Your task to perform on an android device: turn off priority inbox in the gmail app Image 0: 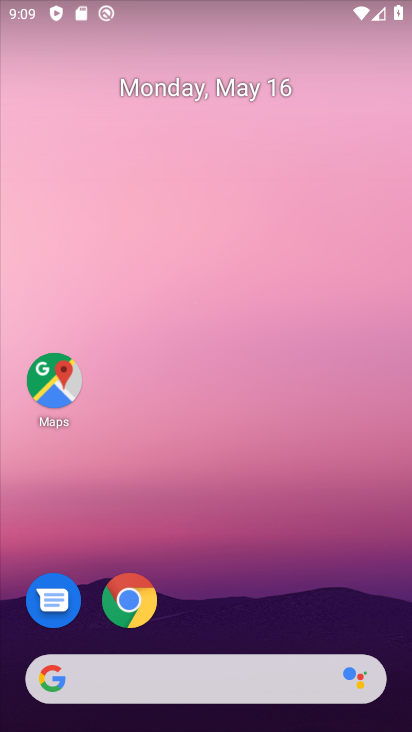
Step 0: drag from (193, 644) to (235, 199)
Your task to perform on an android device: turn off priority inbox in the gmail app Image 1: 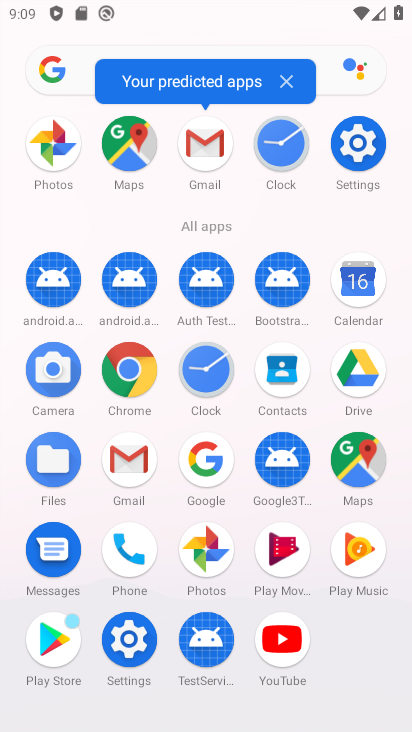
Step 1: click (134, 469)
Your task to perform on an android device: turn off priority inbox in the gmail app Image 2: 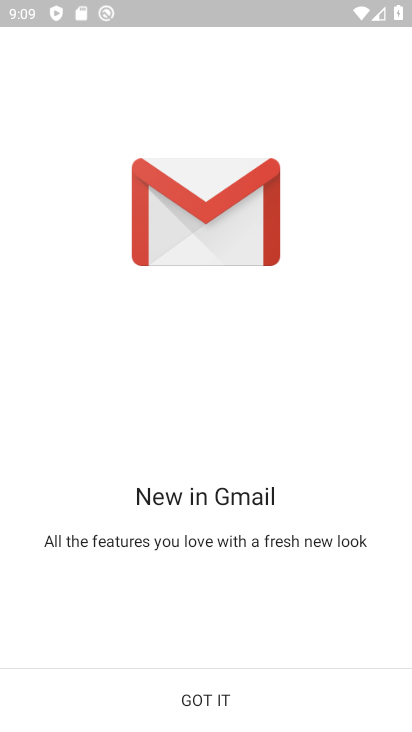
Step 2: click (209, 695)
Your task to perform on an android device: turn off priority inbox in the gmail app Image 3: 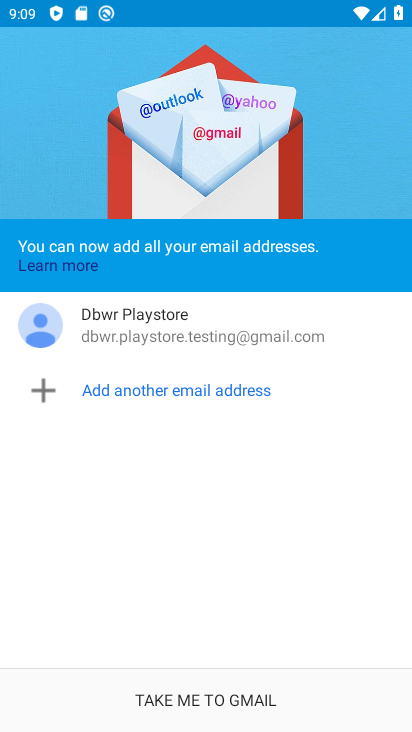
Step 3: click (209, 694)
Your task to perform on an android device: turn off priority inbox in the gmail app Image 4: 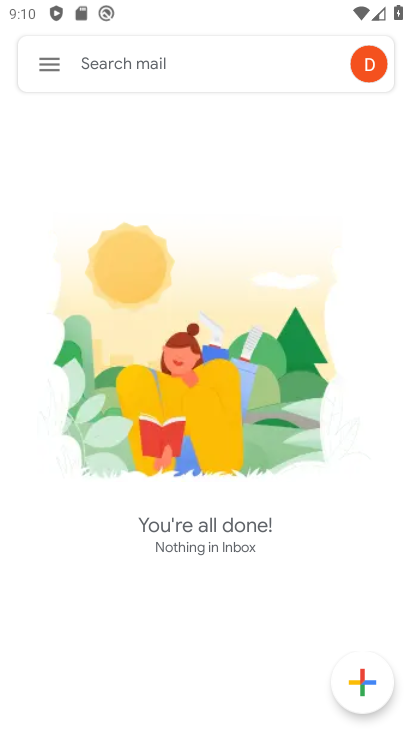
Step 4: click (65, 78)
Your task to perform on an android device: turn off priority inbox in the gmail app Image 5: 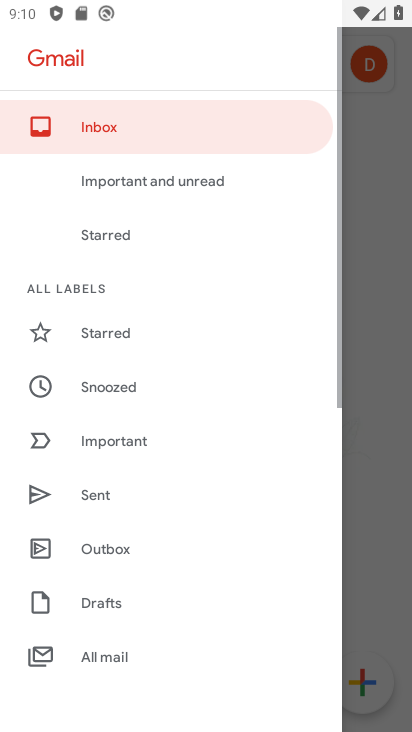
Step 5: drag from (121, 628) to (211, 270)
Your task to perform on an android device: turn off priority inbox in the gmail app Image 6: 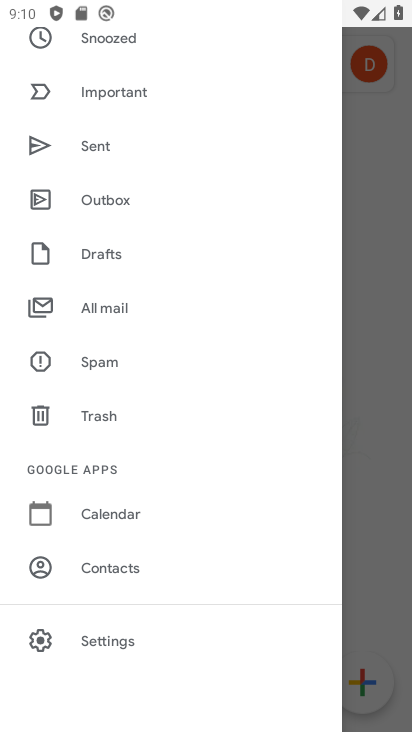
Step 6: click (132, 644)
Your task to perform on an android device: turn off priority inbox in the gmail app Image 7: 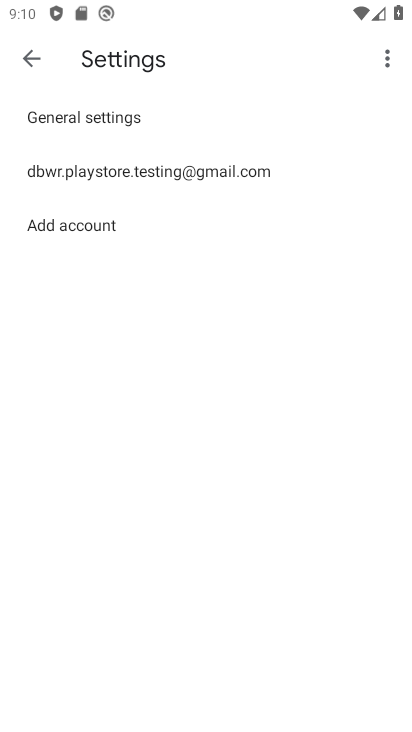
Step 7: click (176, 191)
Your task to perform on an android device: turn off priority inbox in the gmail app Image 8: 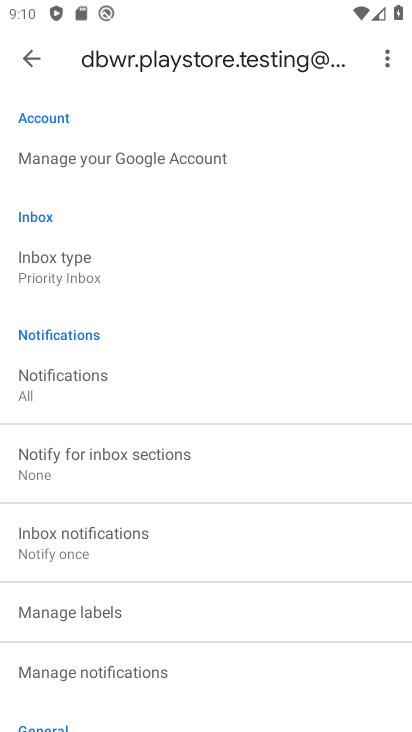
Step 8: click (141, 277)
Your task to perform on an android device: turn off priority inbox in the gmail app Image 9: 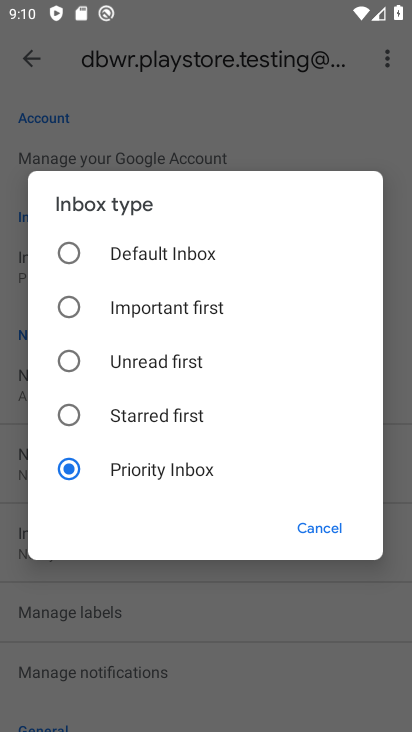
Step 9: click (146, 264)
Your task to perform on an android device: turn off priority inbox in the gmail app Image 10: 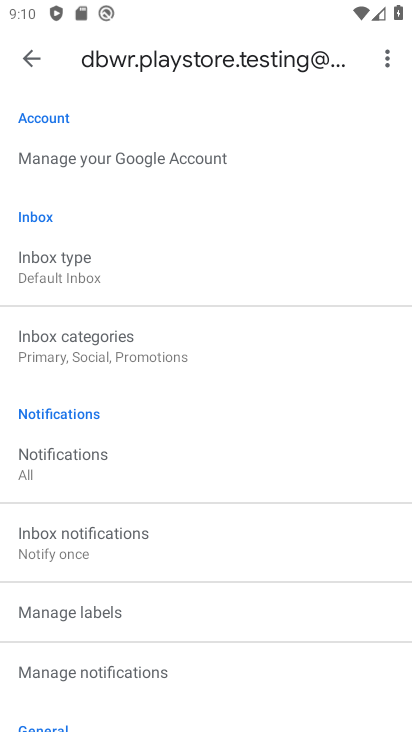
Step 10: task complete